Your task to perform on an android device: turn on javascript in the chrome app Image 0: 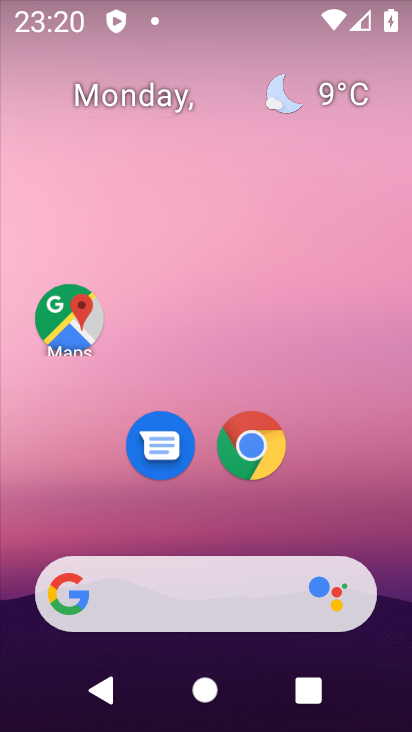
Step 0: drag from (273, 591) to (288, 5)
Your task to perform on an android device: turn on javascript in the chrome app Image 1: 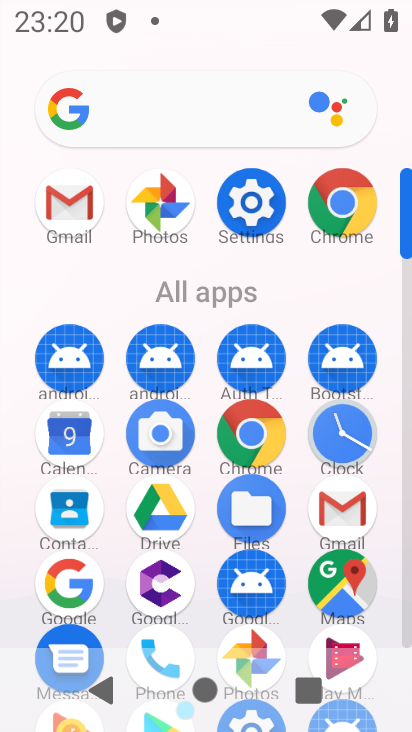
Step 1: click (259, 422)
Your task to perform on an android device: turn on javascript in the chrome app Image 2: 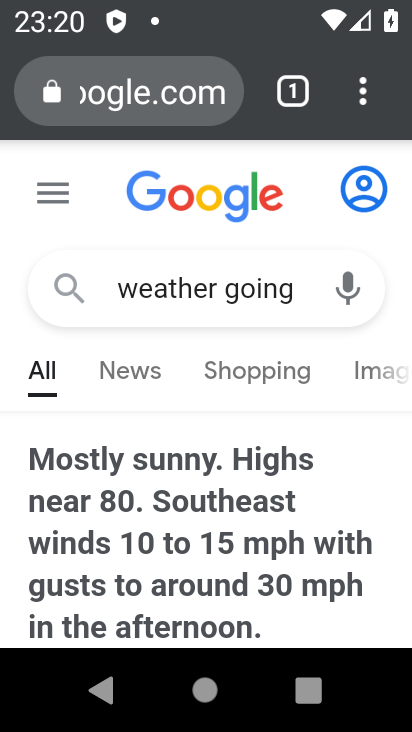
Step 2: drag from (357, 96) to (240, 478)
Your task to perform on an android device: turn on javascript in the chrome app Image 3: 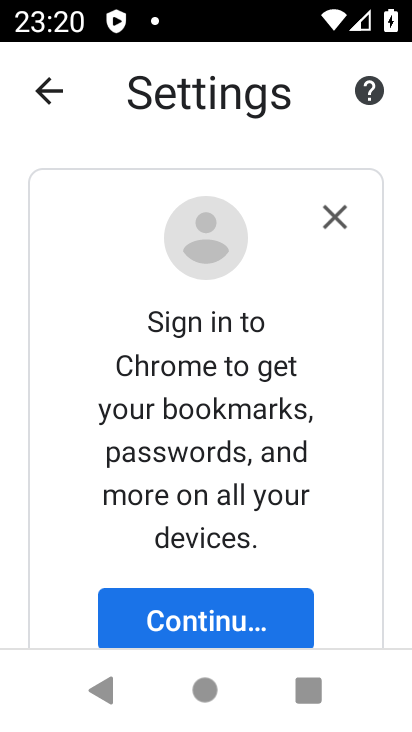
Step 3: drag from (339, 610) to (340, 88)
Your task to perform on an android device: turn on javascript in the chrome app Image 4: 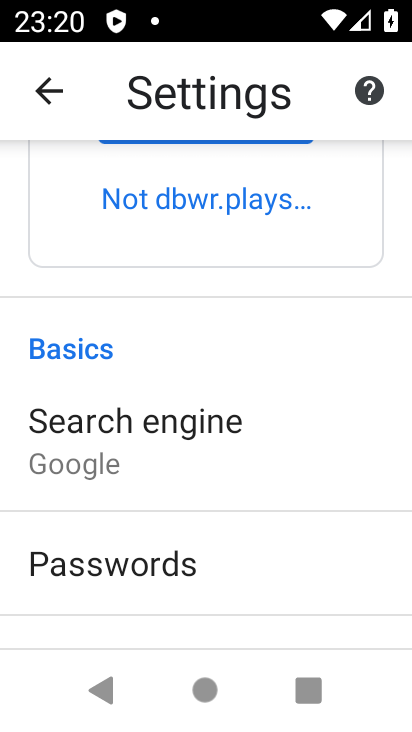
Step 4: drag from (323, 594) to (329, 72)
Your task to perform on an android device: turn on javascript in the chrome app Image 5: 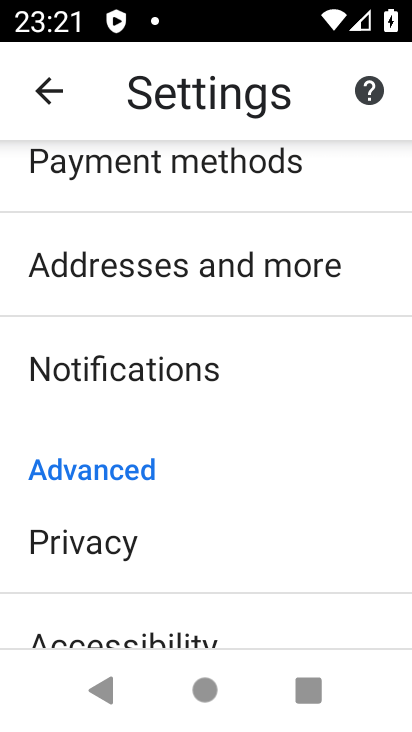
Step 5: drag from (319, 628) to (313, 107)
Your task to perform on an android device: turn on javascript in the chrome app Image 6: 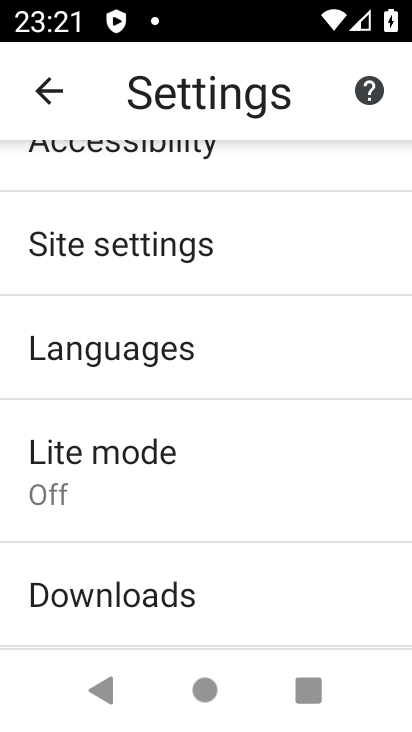
Step 6: click (346, 571)
Your task to perform on an android device: turn on javascript in the chrome app Image 7: 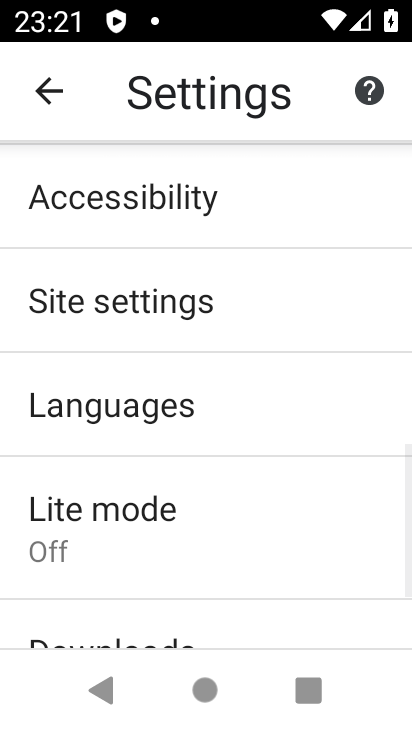
Step 7: click (224, 312)
Your task to perform on an android device: turn on javascript in the chrome app Image 8: 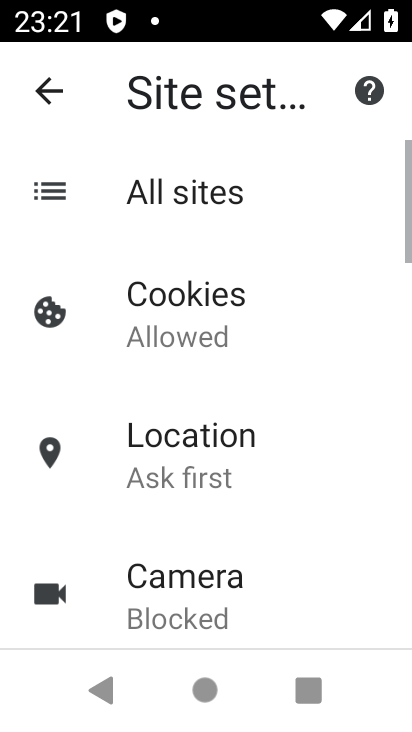
Step 8: drag from (360, 611) to (348, 78)
Your task to perform on an android device: turn on javascript in the chrome app Image 9: 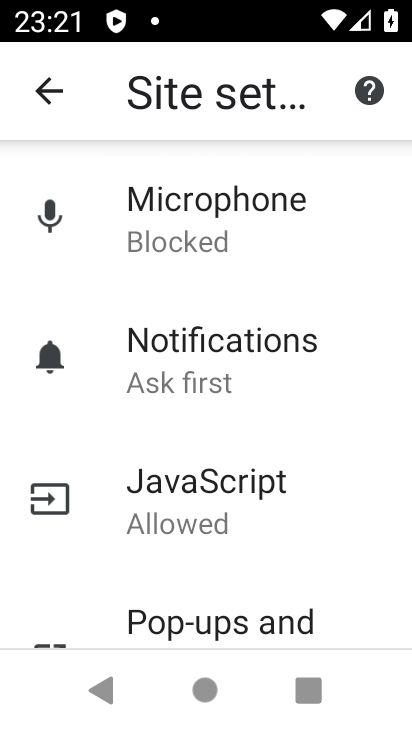
Step 9: click (315, 510)
Your task to perform on an android device: turn on javascript in the chrome app Image 10: 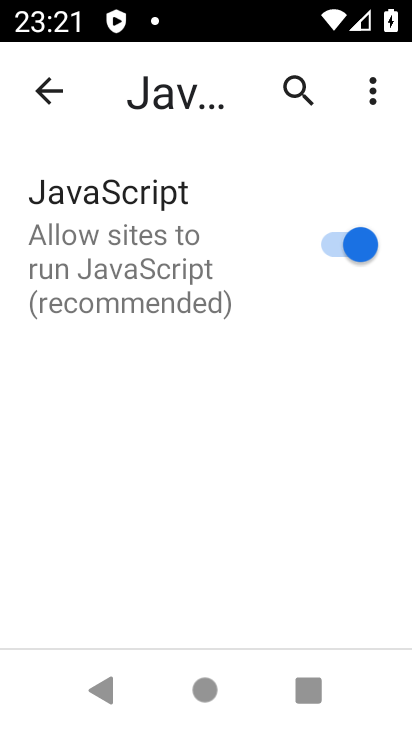
Step 10: task complete